Your task to perform on an android device: open a bookmark in the chrome app Image 0: 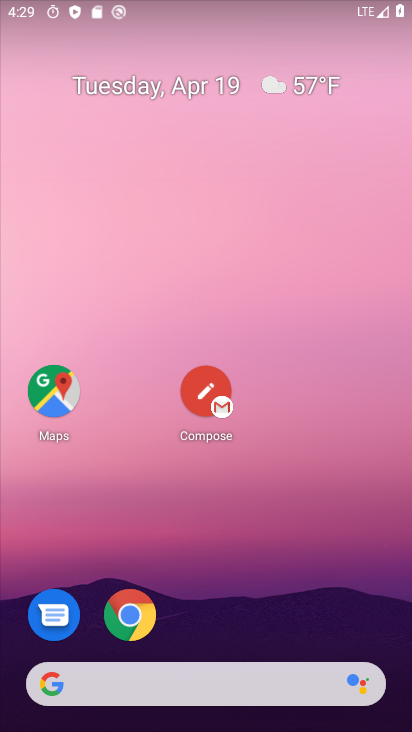
Step 0: drag from (232, 629) to (293, 68)
Your task to perform on an android device: open a bookmark in the chrome app Image 1: 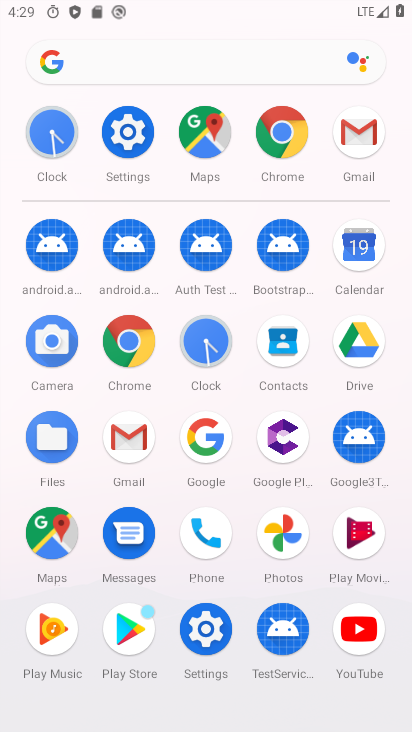
Step 1: click (145, 348)
Your task to perform on an android device: open a bookmark in the chrome app Image 2: 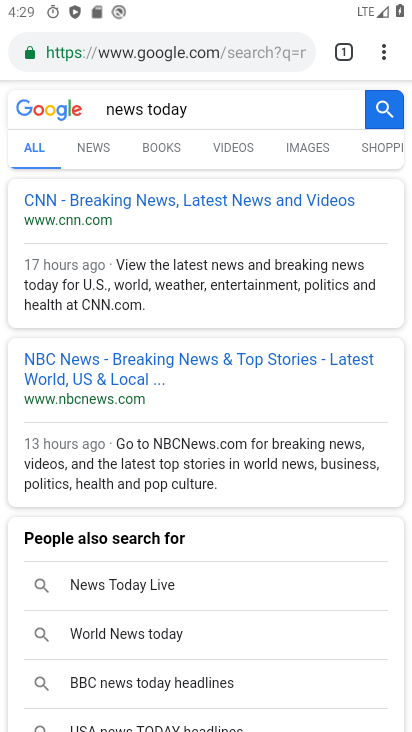
Step 2: click (387, 51)
Your task to perform on an android device: open a bookmark in the chrome app Image 3: 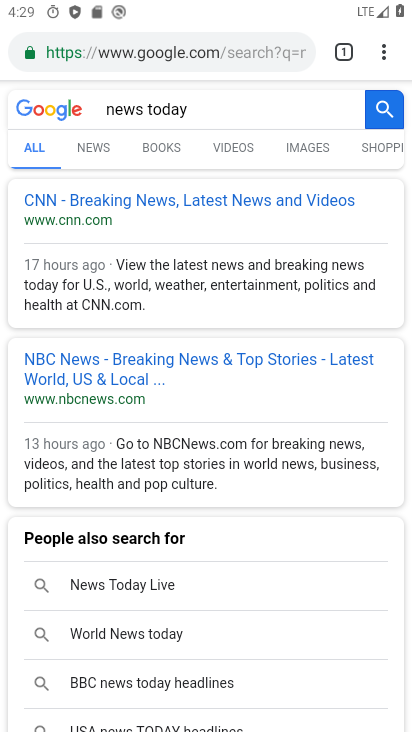
Step 3: click (375, 54)
Your task to perform on an android device: open a bookmark in the chrome app Image 4: 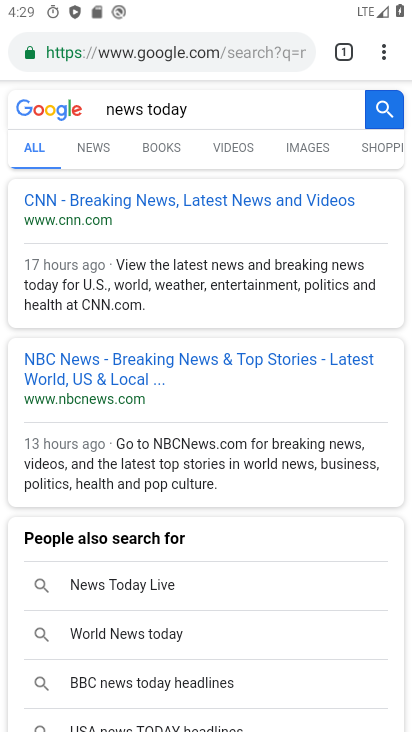
Step 4: click (394, 57)
Your task to perform on an android device: open a bookmark in the chrome app Image 5: 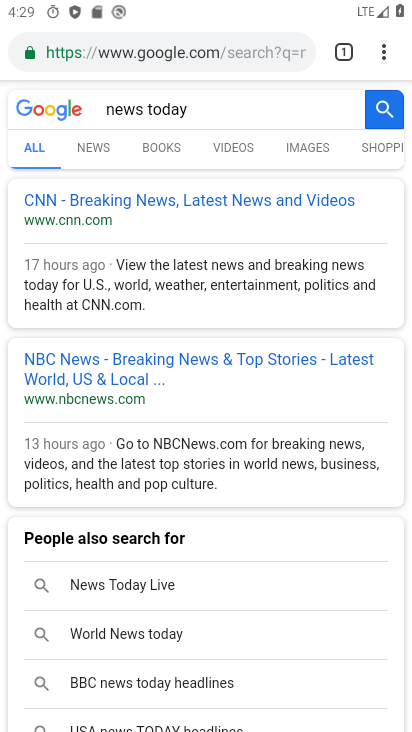
Step 5: click (394, 43)
Your task to perform on an android device: open a bookmark in the chrome app Image 6: 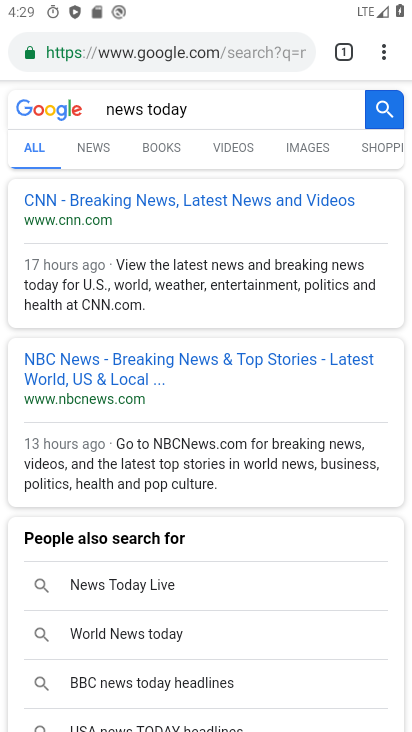
Step 6: click (374, 49)
Your task to perform on an android device: open a bookmark in the chrome app Image 7: 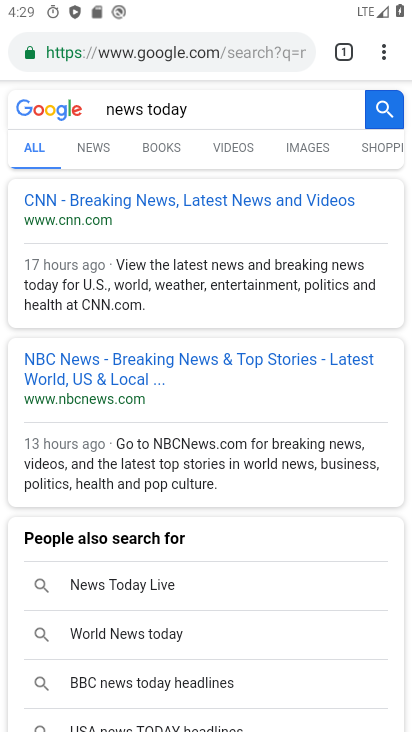
Step 7: click (384, 45)
Your task to perform on an android device: open a bookmark in the chrome app Image 8: 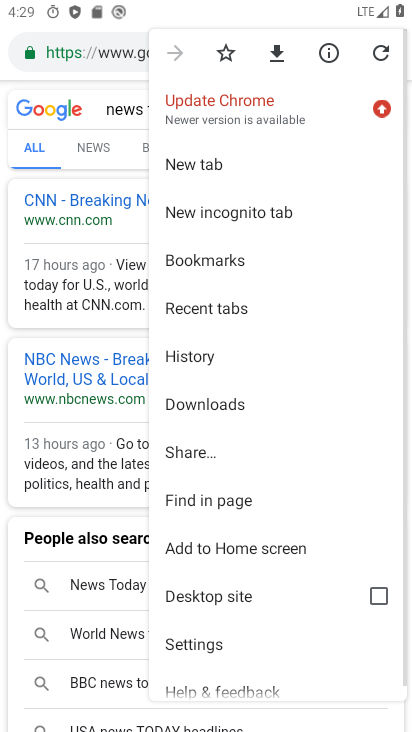
Step 8: click (236, 258)
Your task to perform on an android device: open a bookmark in the chrome app Image 9: 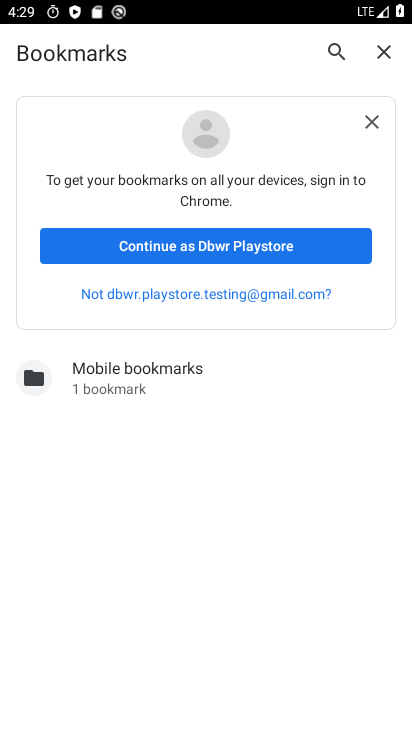
Step 9: task complete